Your task to perform on an android device: Search for sushi restaurants on Maps Image 0: 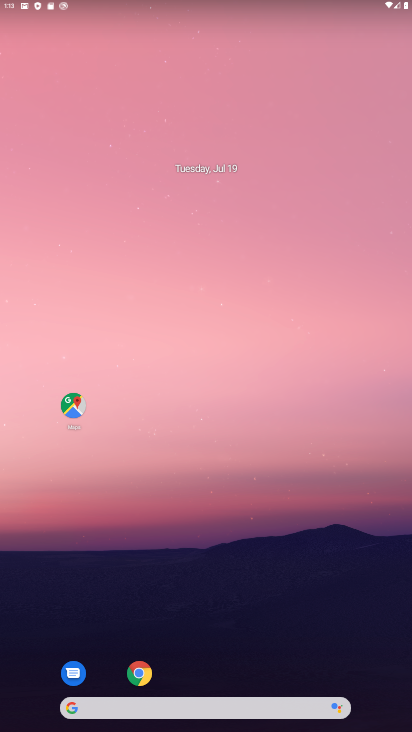
Step 0: drag from (225, 419) to (225, 262)
Your task to perform on an android device: Search for sushi restaurants on Maps Image 1: 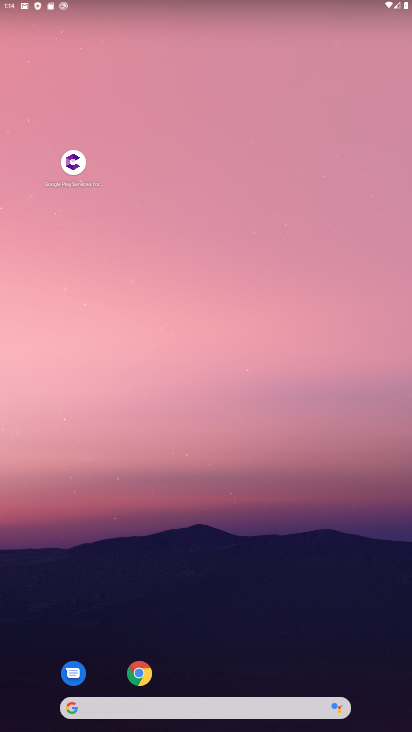
Step 1: drag from (183, 691) to (179, 106)
Your task to perform on an android device: Search for sushi restaurants on Maps Image 2: 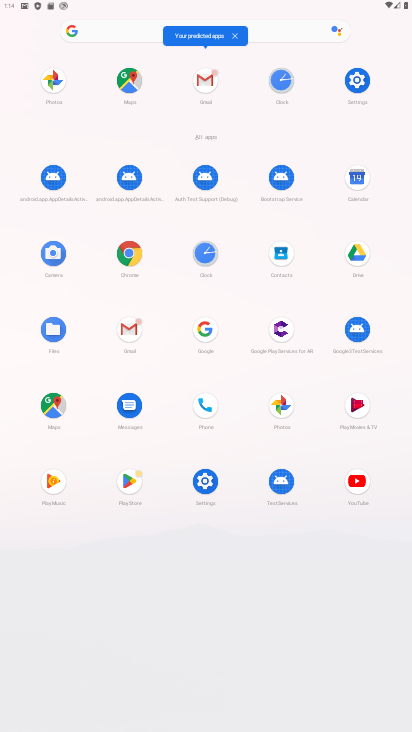
Step 2: click (52, 405)
Your task to perform on an android device: Search for sushi restaurants on Maps Image 3: 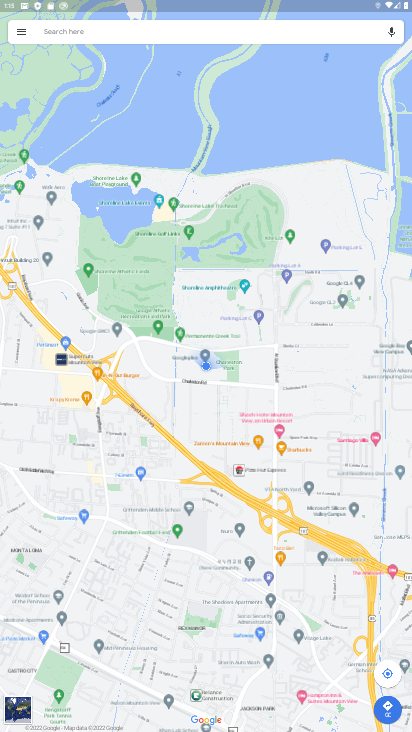
Step 3: click (106, 33)
Your task to perform on an android device: Search for sushi restaurants on Maps Image 4: 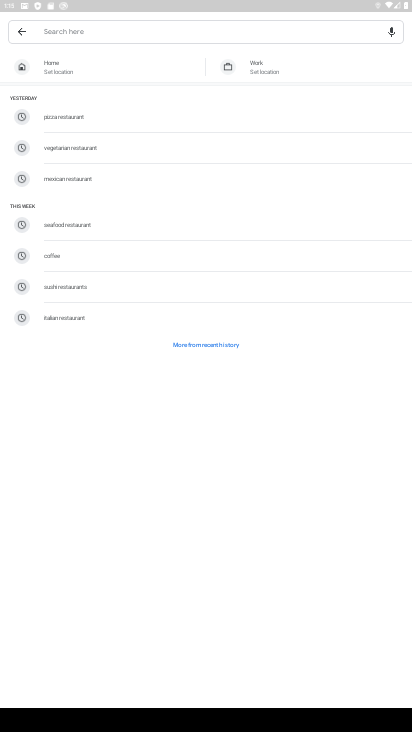
Step 4: click (58, 286)
Your task to perform on an android device: Search for sushi restaurants on Maps Image 5: 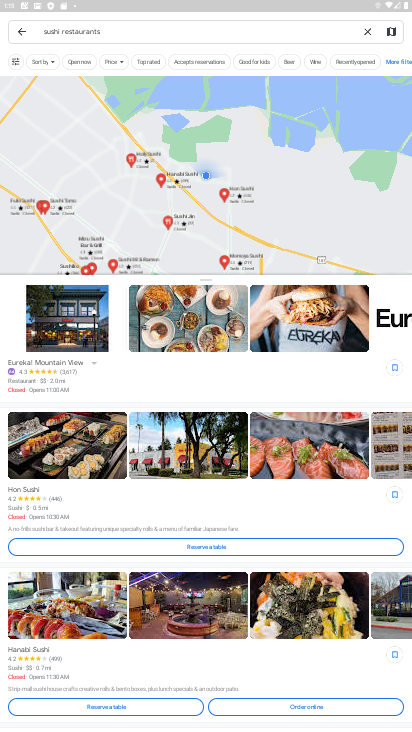
Step 5: task complete